Your task to perform on an android device: Open Google Chrome and open the bookmarks view Image 0: 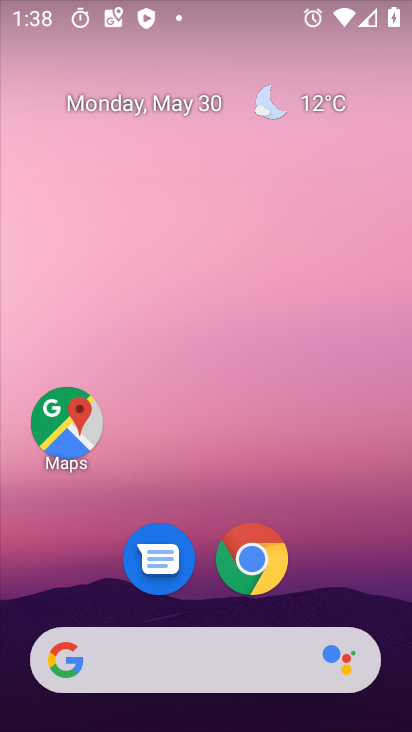
Step 0: click (254, 567)
Your task to perform on an android device: Open Google Chrome and open the bookmarks view Image 1: 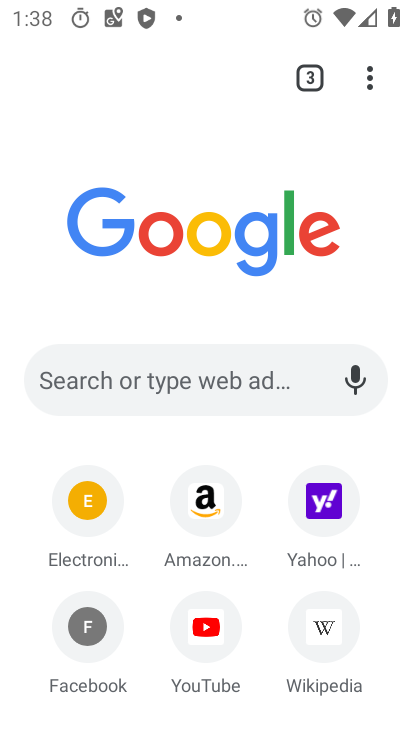
Step 1: click (369, 69)
Your task to perform on an android device: Open Google Chrome and open the bookmarks view Image 2: 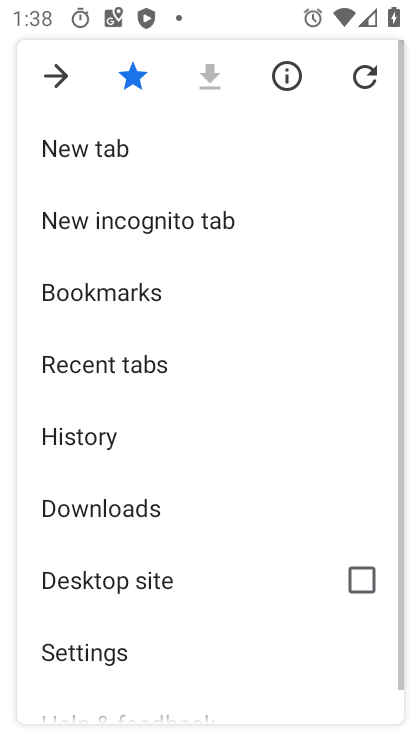
Step 2: click (98, 291)
Your task to perform on an android device: Open Google Chrome and open the bookmarks view Image 3: 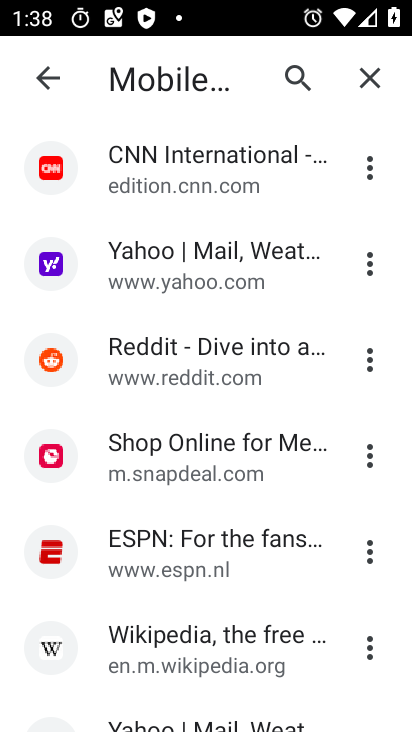
Step 3: task complete